Your task to perform on an android device: all mails in gmail Image 0: 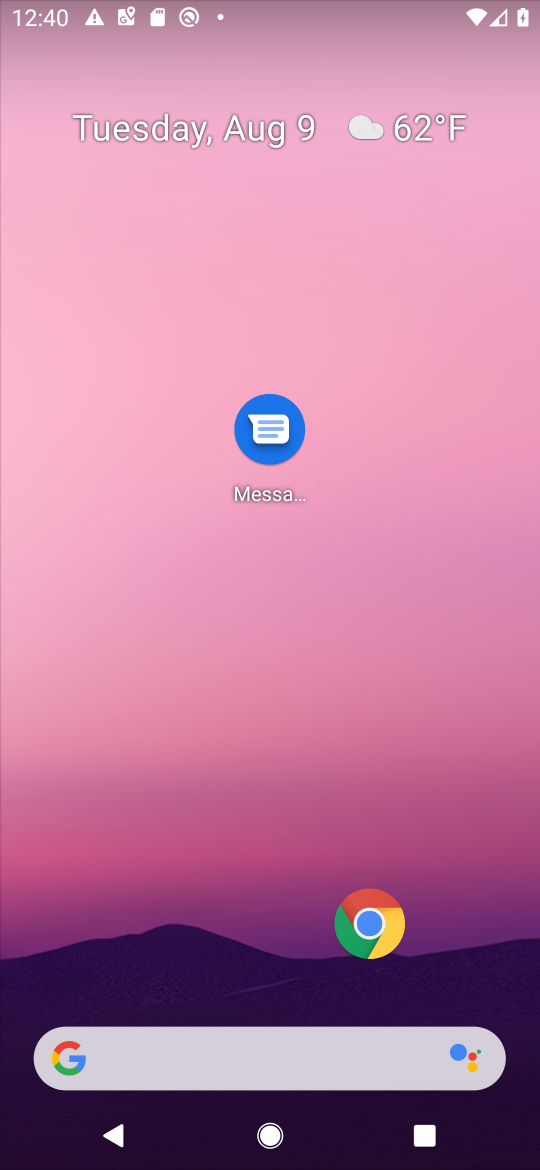
Step 0: drag from (50, 1129) to (280, 30)
Your task to perform on an android device: all mails in gmail Image 1: 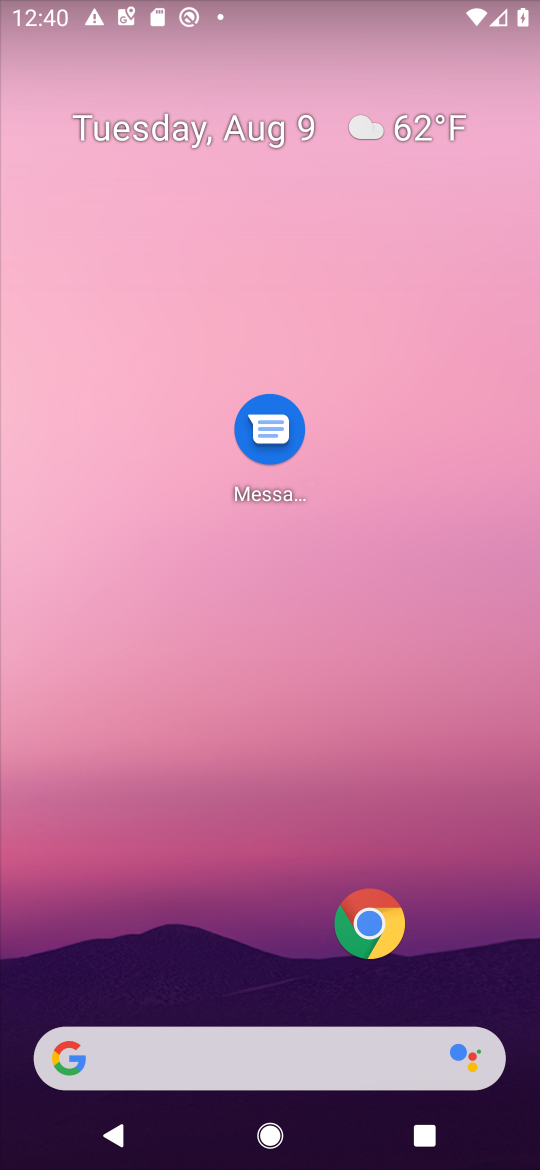
Step 1: task complete